Your task to perform on an android device: turn on notifications settings in the gmail app Image 0: 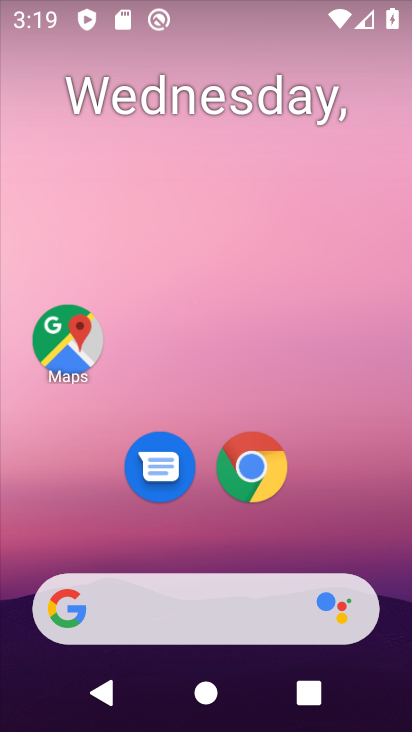
Step 0: drag from (309, 410) to (245, 21)
Your task to perform on an android device: turn on notifications settings in the gmail app Image 1: 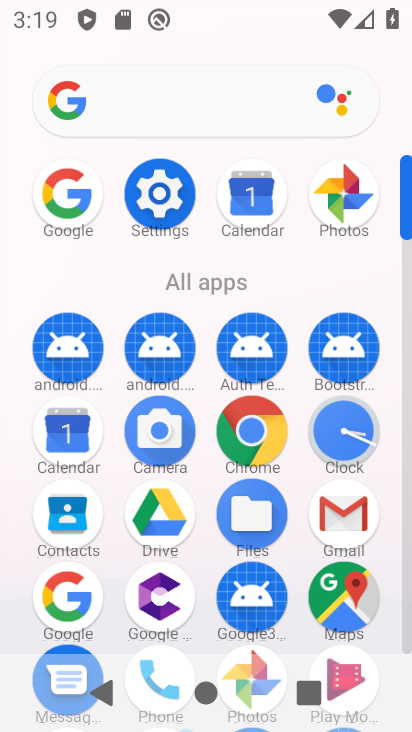
Step 1: click (350, 519)
Your task to perform on an android device: turn on notifications settings in the gmail app Image 2: 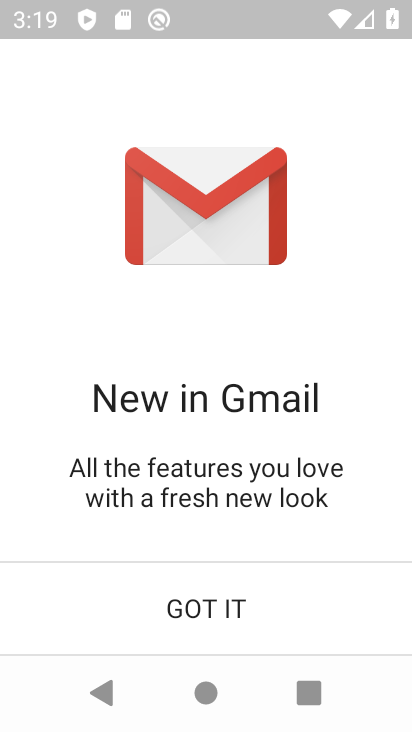
Step 2: click (256, 599)
Your task to perform on an android device: turn on notifications settings in the gmail app Image 3: 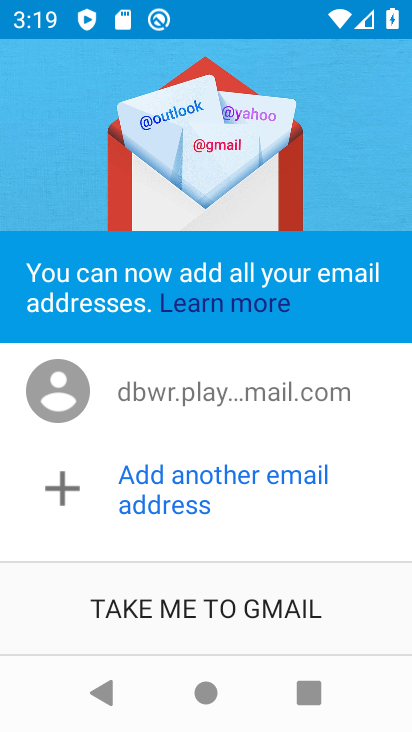
Step 3: click (260, 594)
Your task to perform on an android device: turn on notifications settings in the gmail app Image 4: 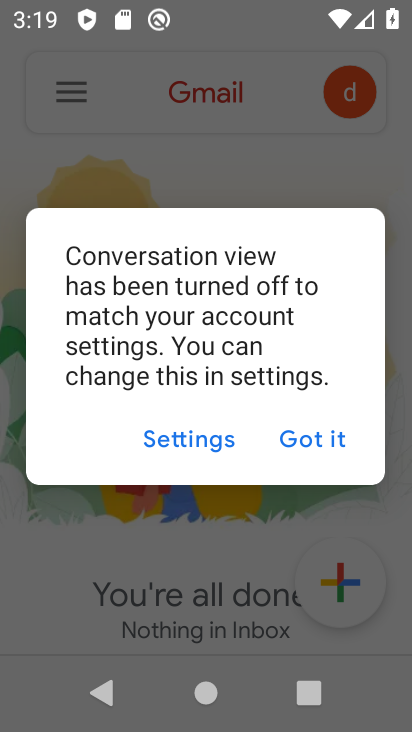
Step 4: click (334, 439)
Your task to perform on an android device: turn on notifications settings in the gmail app Image 5: 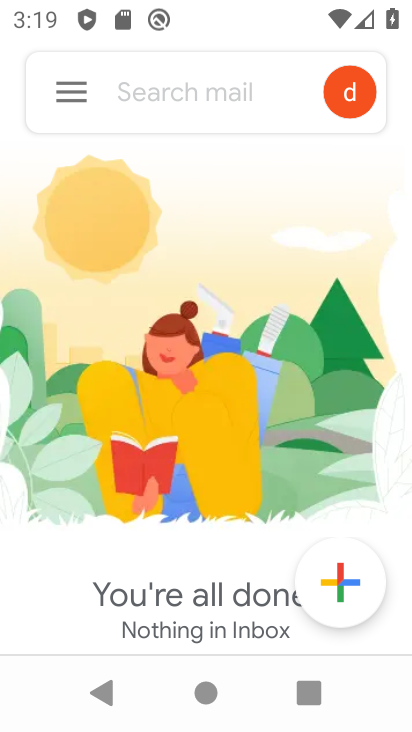
Step 5: click (77, 92)
Your task to perform on an android device: turn on notifications settings in the gmail app Image 6: 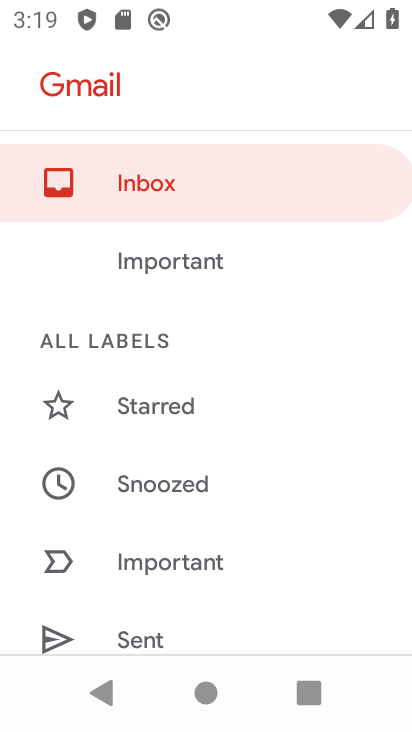
Step 6: click (67, 98)
Your task to perform on an android device: turn on notifications settings in the gmail app Image 7: 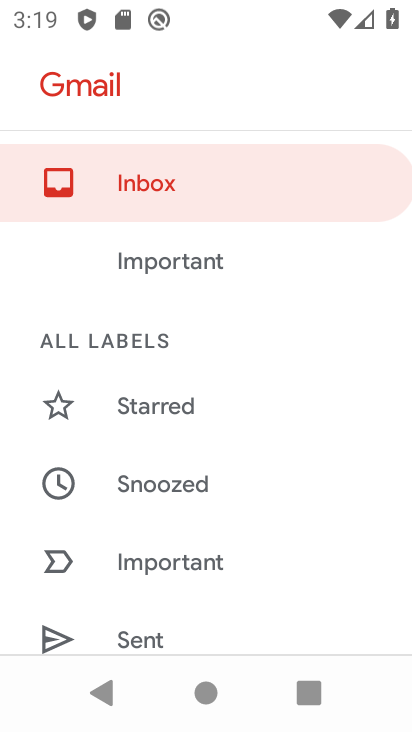
Step 7: drag from (288, 115) to (289, 61)
Your task to perform on an android device: turn on notifications settings in the gmail app Image 8: 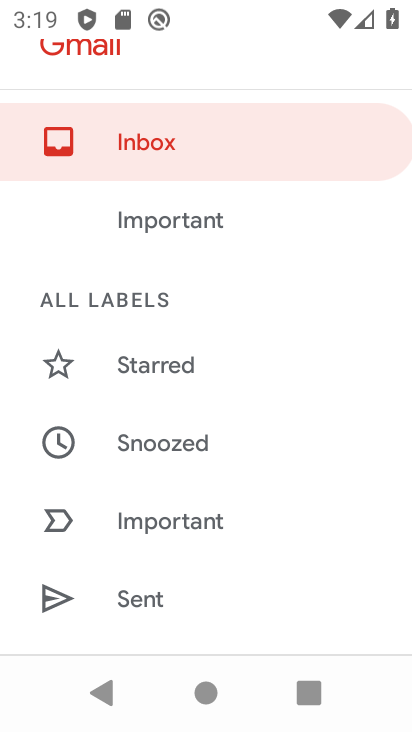
Step 8: drag from (237, 588) to (304, 111)
Your task to perform on an android device: turn on notifications settings in the gmail app Image 9: 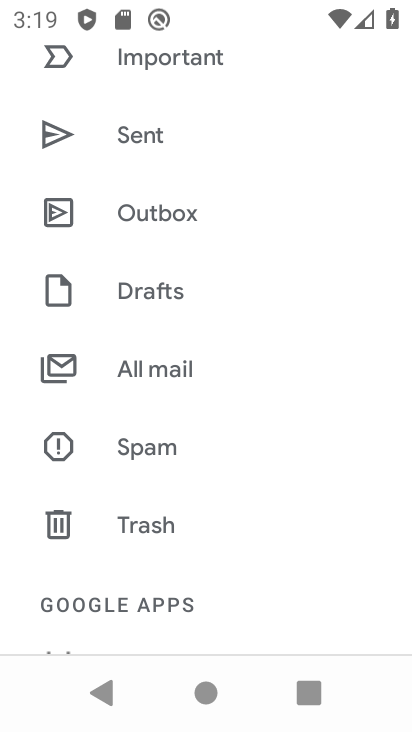
Step 9: drag from (212, 518) to (241, 17)
Your task to perform on an android device: turn on notifications settings in the gmail app Image 10: 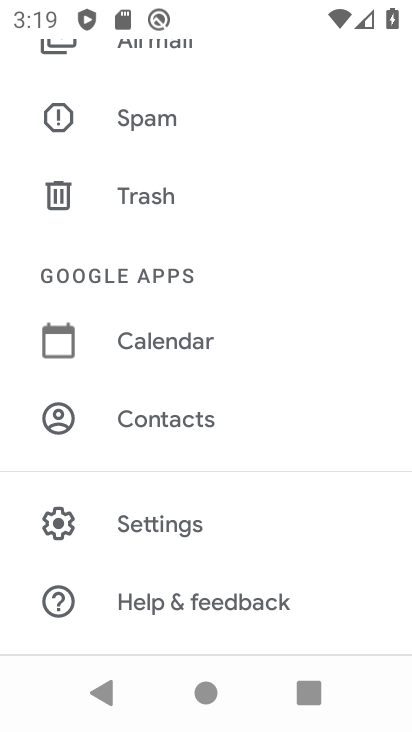
Step 10: click (164, 521)
Your task to perform on an android device: turn on notifications settings in the gmail app Image 11: 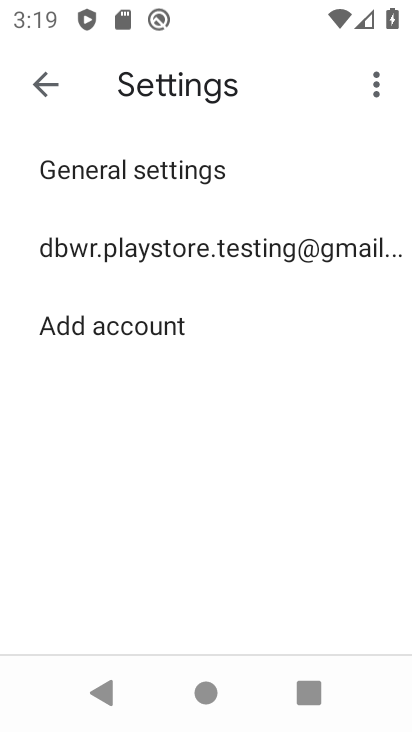
Step 11: click (226, 258)
Your task to perform on an android device: turn on notifications settings in the gmail app Image 12: 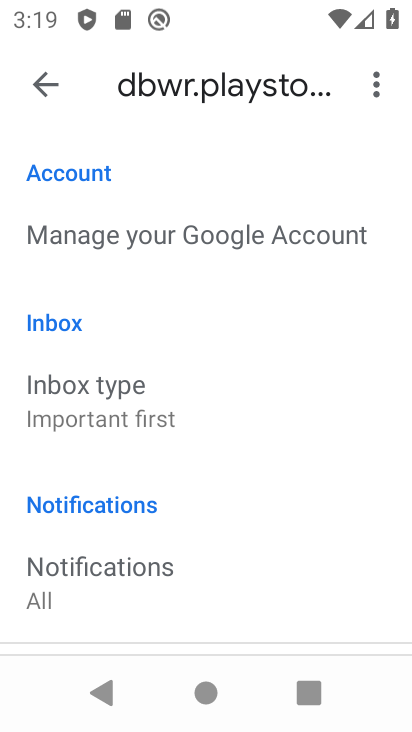
Step 12: drag from (246, 507) to (274, 132)
Your task to perform on an android device: turn on notifications settings in the gmail app Image 13: 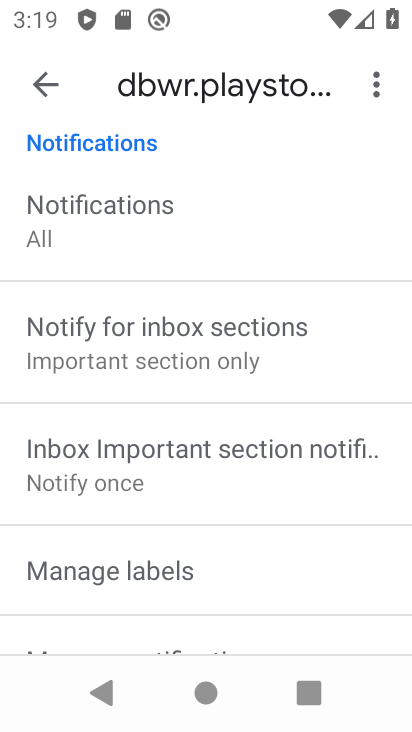
Step 13: click (127, 232)
Your task to perform on an android device: turn on notifications settings in the gmail app Image 14: 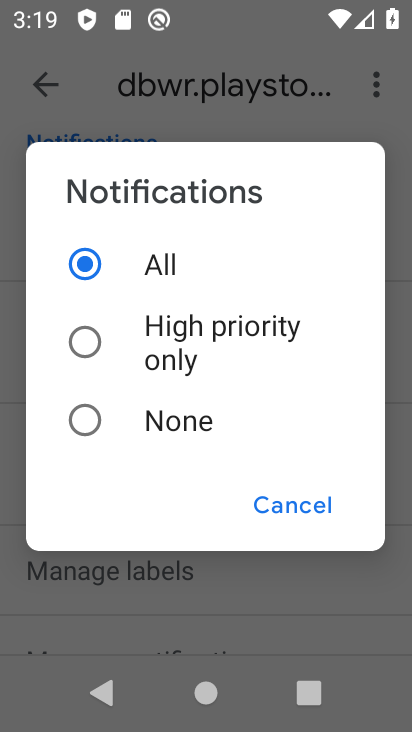
Step 14: task complete